Your task to perform on an android device: manage bookmarks in the chrome app Image 0: 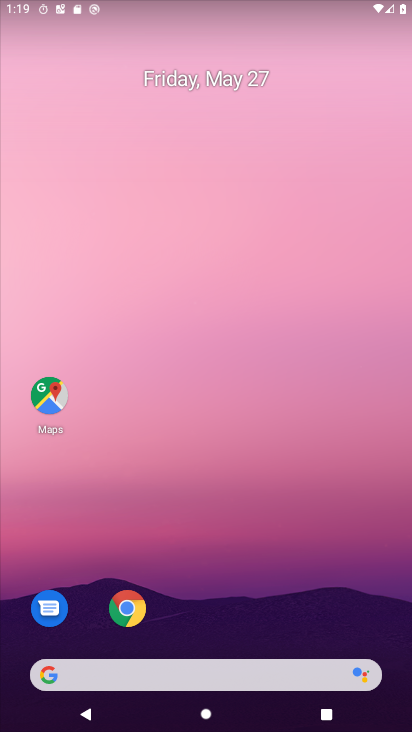
Step 0: click (125, 614)
Your task to perform on an android device: manage bookmarks in the chrome app Image 1: 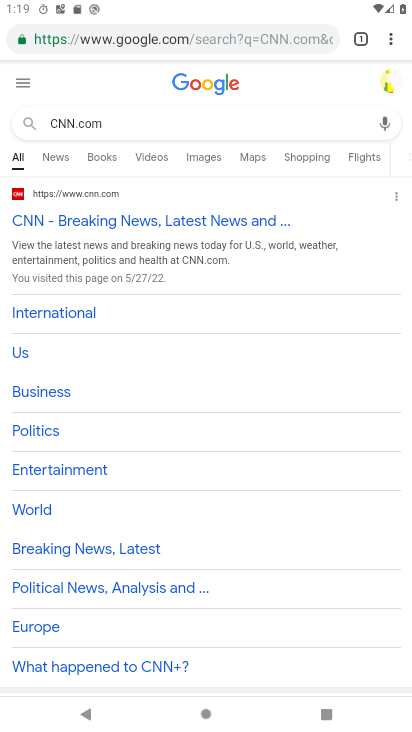
Step 1: click (391, 40)
Your task to perform on an android device: manage bookmarks in the chrome app Image 2: 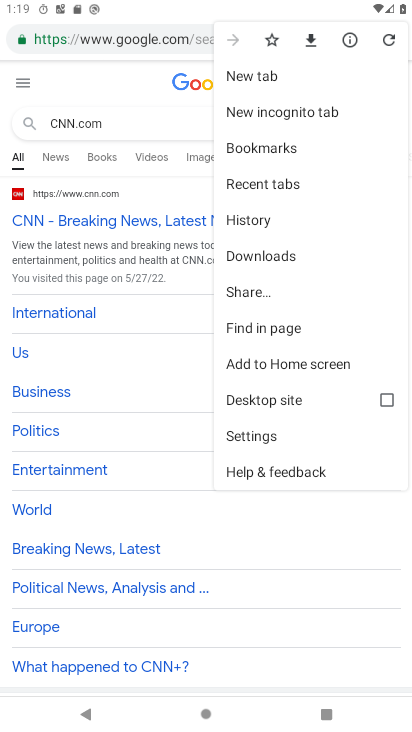
Step 2: click (259, 149)
Your task to perform on an android device: manage bookmarks in the chrome app Image 3: 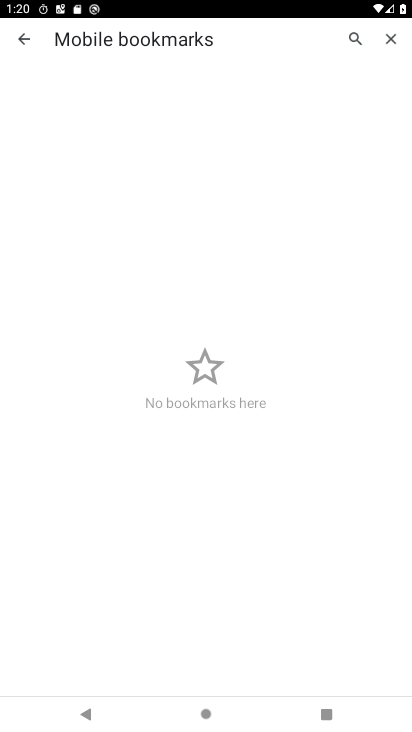
Step 3: task complete